Your task to perform on an android device: Go to Android settings Image 0: 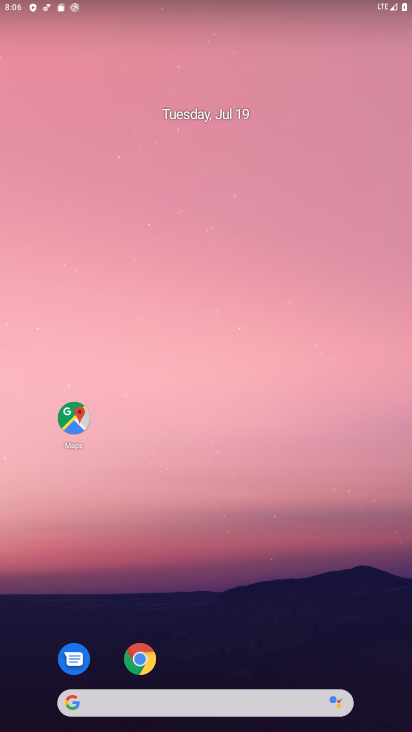
Step 0: drag from (323, 649) to (281, 5)
Your task to perform on an android device: Go to Android settings Image 1: 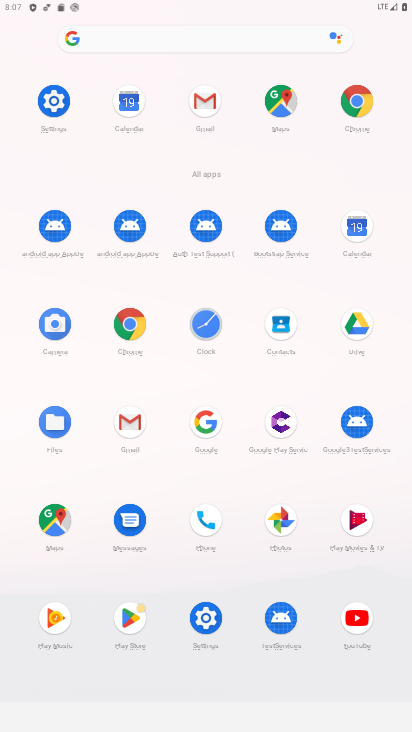
Step 1: click (207, 631)
Your task to perform on an android device: Go to Android settings Image 2: 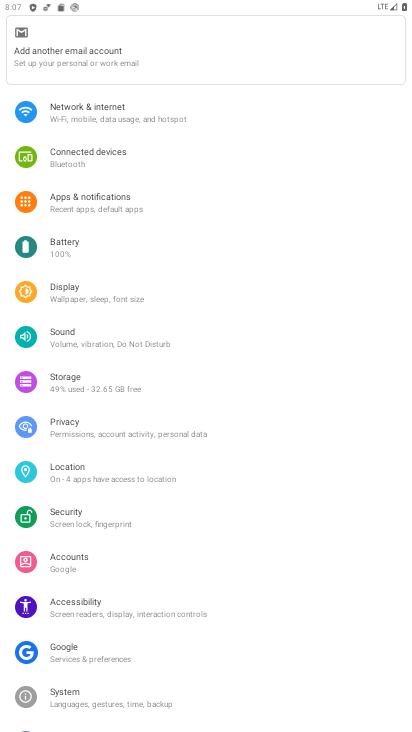
Step 2: drag from (115, 673) to (269, 139)
Your task to perform on an android device: Go to Android settings Image 3: 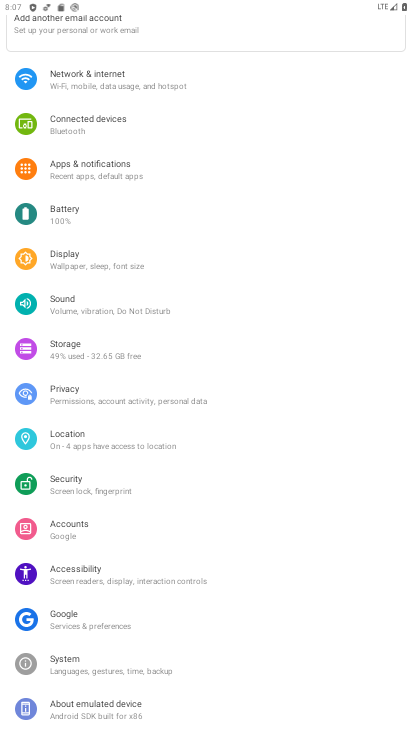
Step 3: click (50, 716)
Your task to perform on an android device: Go to Android settings Image 4: 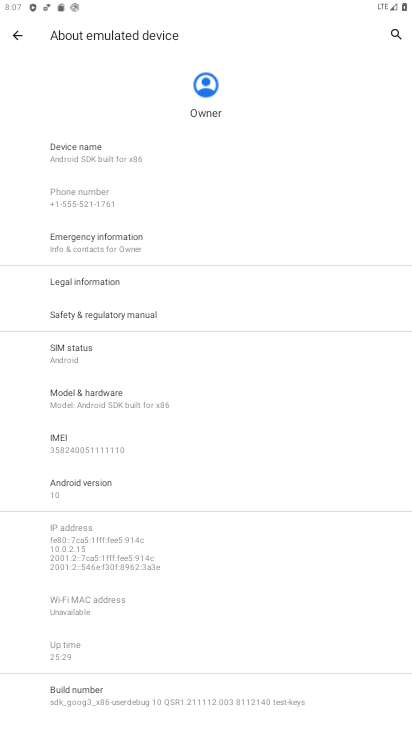
Step 4: click (79, 487)
Your task to perform on an android device: Go to Android settings Image 5: 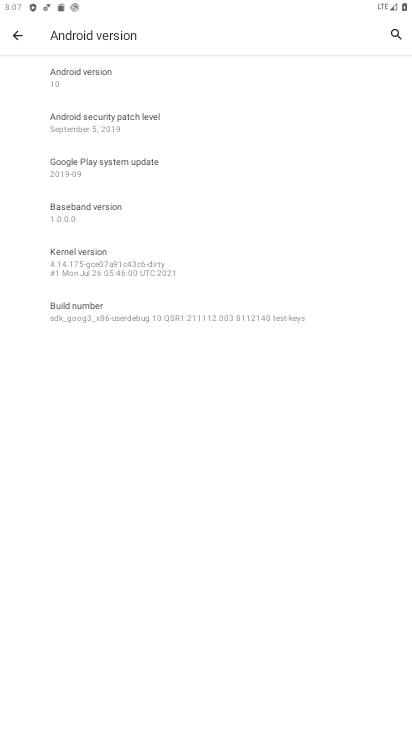
Step 5: task complete